Your task to perform on an android device: turn on bluetooth scan Image 0: 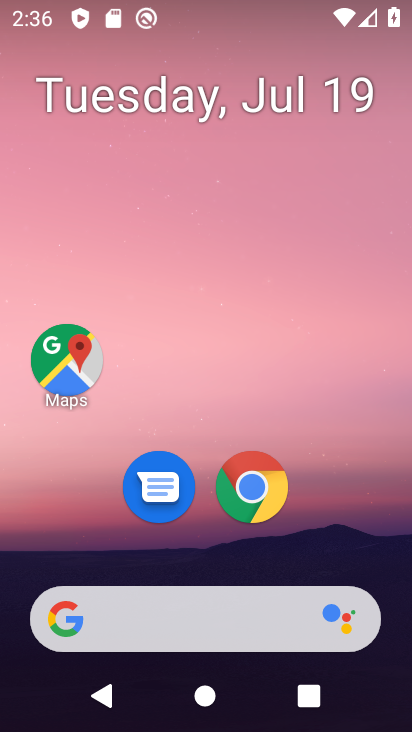
Step 0: drag from (229, 541) to (244, 11)
Your task to perform on an android device: turn on bluetooth scan Image 1: 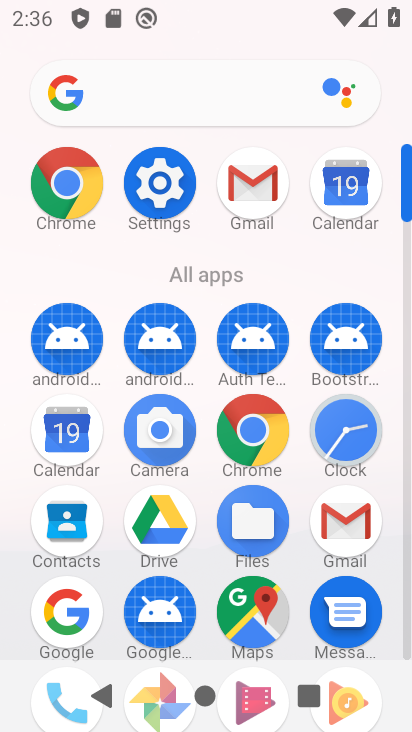
Step 1: click (167, 176)
Your task to perform on an android device: turn on bluetooth scan Image 2: 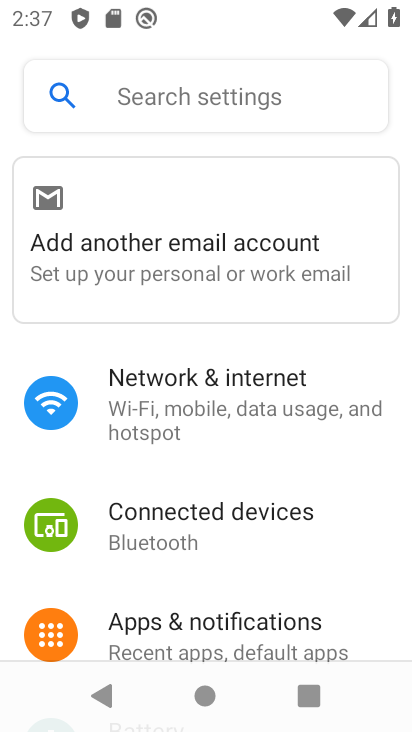
Step 2: click (183, 518)
Your task to perform on an android device: turn on bluetooth scan Image 3: 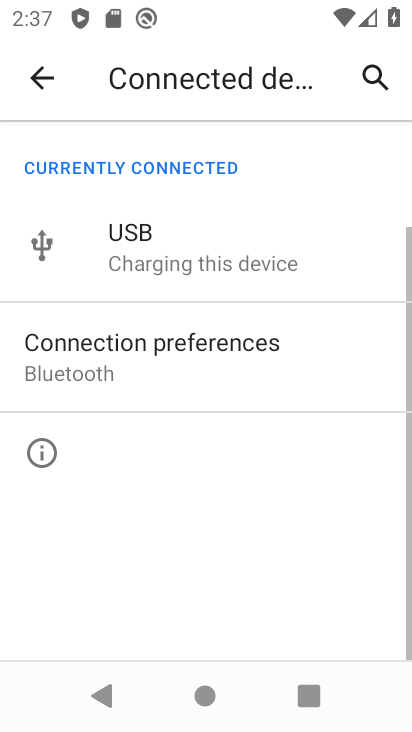
Step 3: click (103, 364)
Your task to perform on an android device: turn on bluetooth scan Image 4: 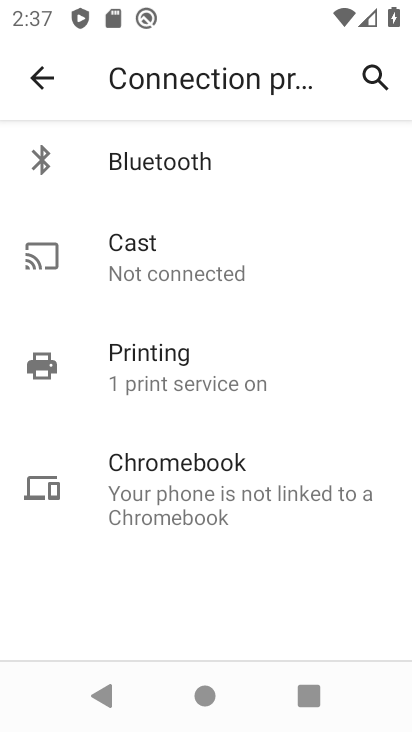
Step 4: click (128, 184)
Your task to perform on an android device: turn on bluetooth scan Image 5: 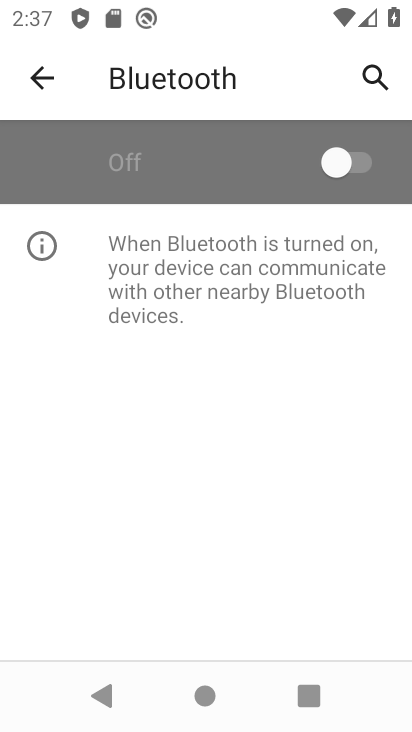
Step 5: click (348, 172)
Your task to perform on an android device: turn on bluetooth scan Image 6: 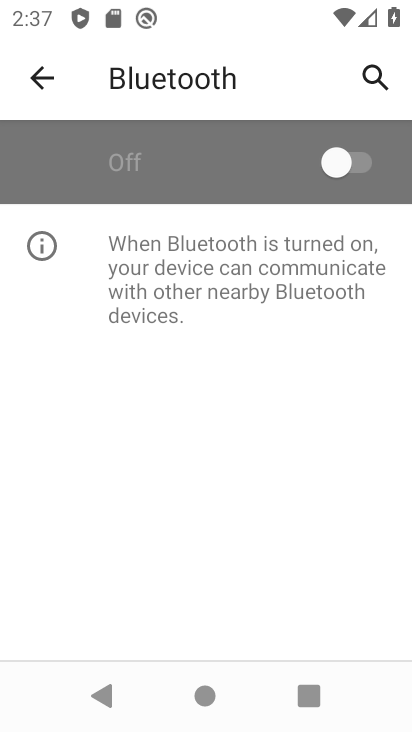
Step 6: task complete